Your task to perform on an android device: clear all cookies in the chrome app Image 0: 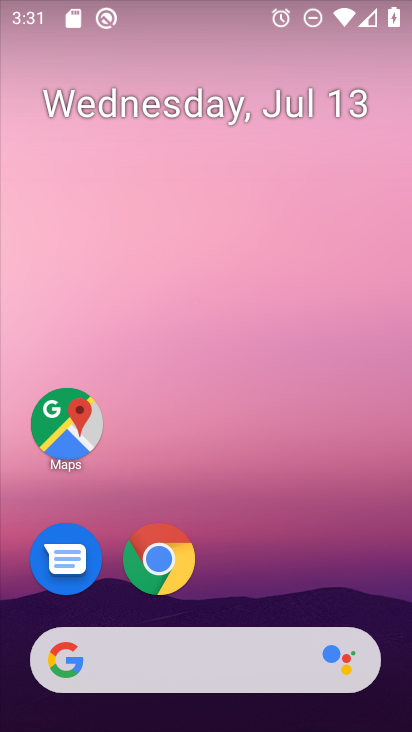
Step 0: drag from (310, 562) to (360, 138)
Your task to perform on an android device: clear all cookies in the chrome app Image 1: 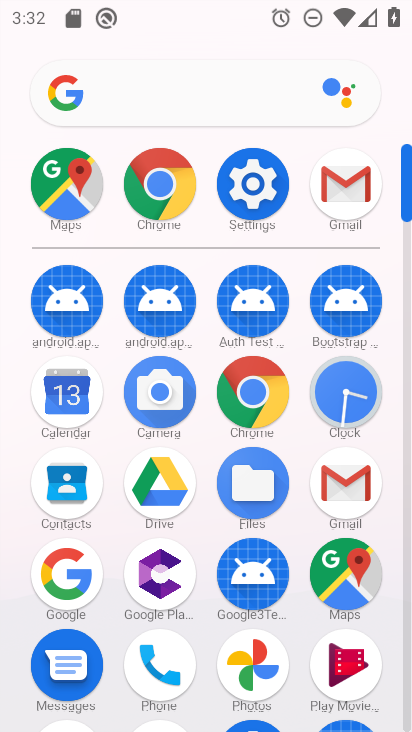
Step 1: click (264, 404)
Your task to perform on an android device: clear all cookies in the chrome app Image 2: 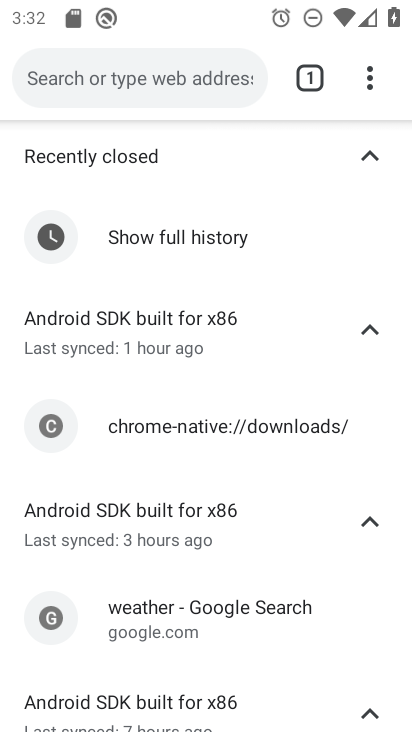
Step 2: click (370, 71)
Your task to perform on an android device: clear all cookies in the chrome app Image 3: 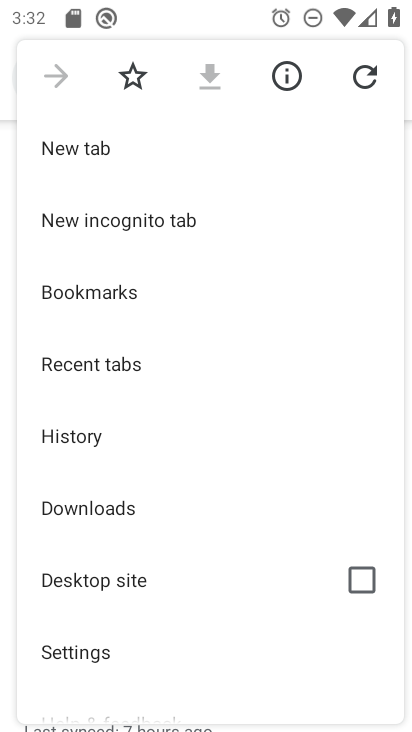
Step 3: drag from (294, 497) to (297, 376)
Your task to perform on an android device: clear all cookies in the chrome app Image 4: 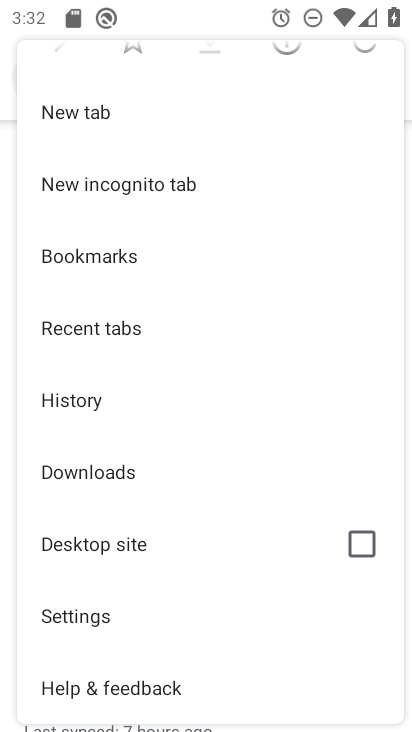
Step 4: click (129, 631)
Your task to perform on an android device: clear all cookies in the chrome app Image 5: 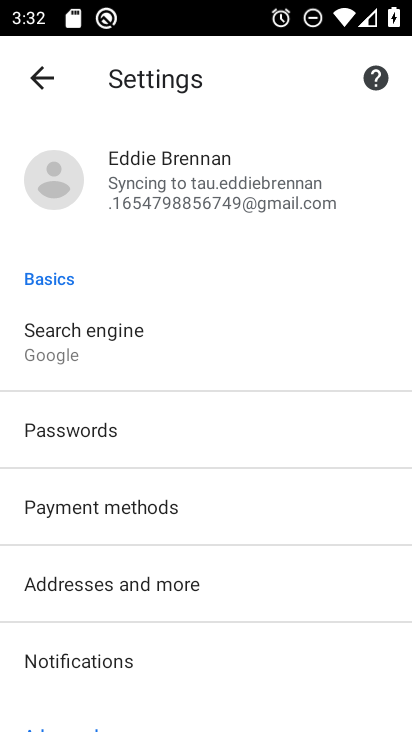
Step 5: drag from (363, 598) to (382, 275)
Your task to perform on an android device: clear all cookies in the chrome app Image 6: 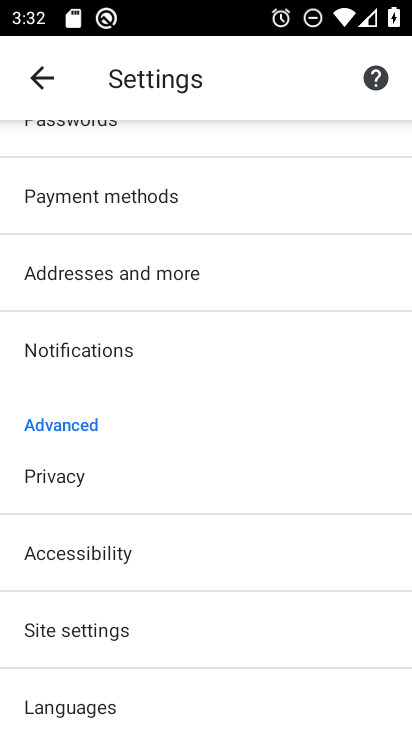
Step 6: drag from (341, 502) to (364, 340)
Your task to perform on an android device: clear all cookies in the chrome app Image 7: 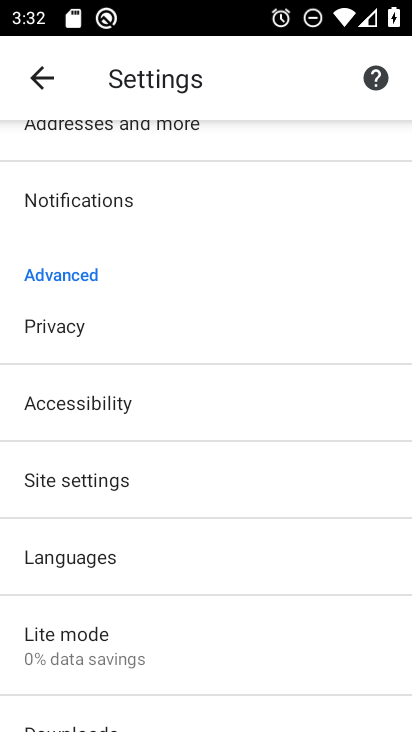
Step 7: click (237, 337)
Your task to perform on an android device: clear all cookies in the chrome app Image 8: 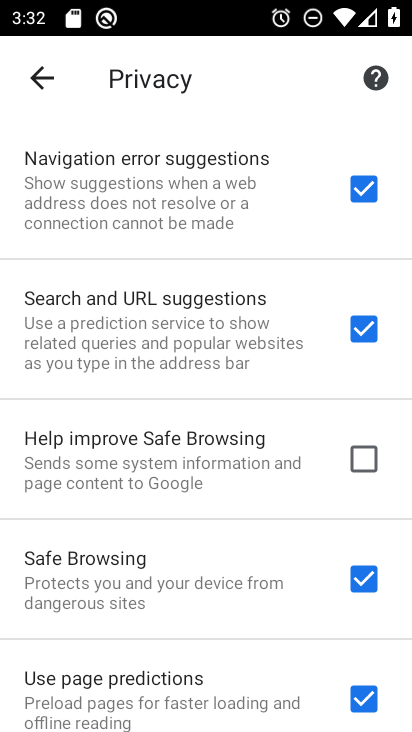
Step 8: drag from (252, 512) to (260, 444)
Your task to perform on an android device: clear all cookies in the chrome app Image 9: 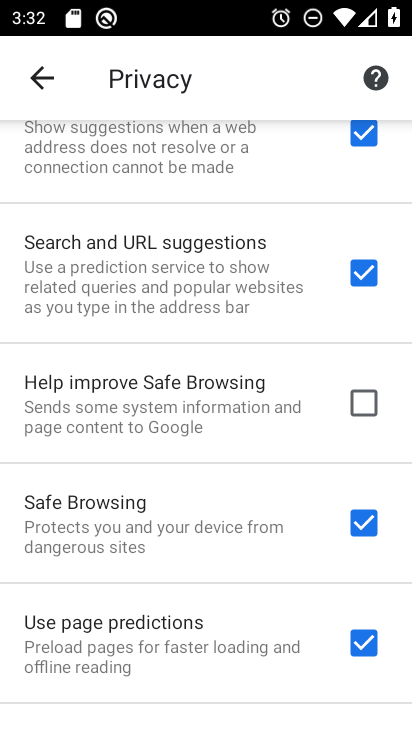
Step 9: drag from (275, 534) to (278, 432)
Your task to perform on an android device: clear all cookies in the chrome app Image 10: 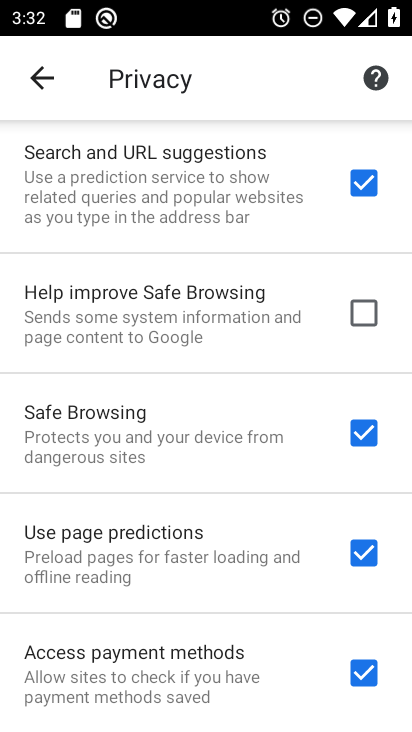
Step 10: drag from (266, 556) to (265, 418)
Your task to perform on an android device: clear all cookies in the chrome app Image 11: 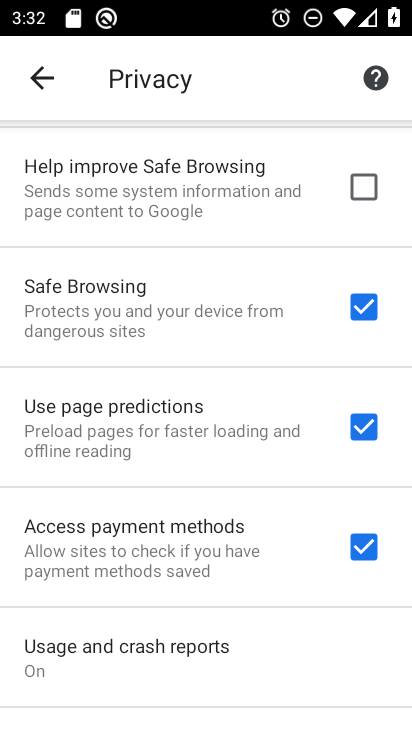
Step 11: drag from (280, 595) to (288, 484)
Your task to perform on an android device: clear all cookies in the chrome app Image 12: 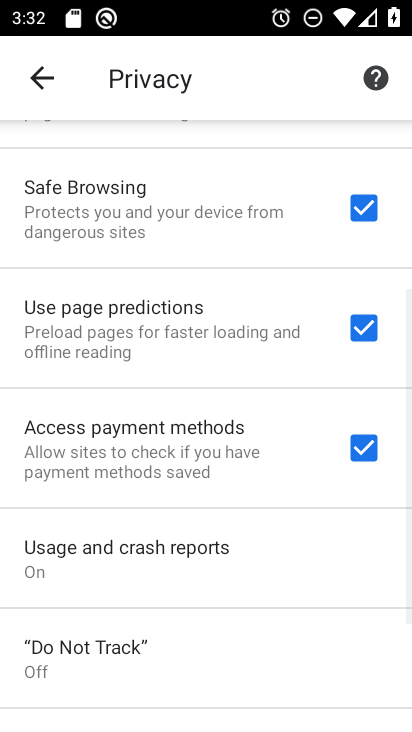
Step 12: drag from (279, 622) to (274, 520)
Your task to perform on an android device: clear all cookies in the chrome app Image 13: 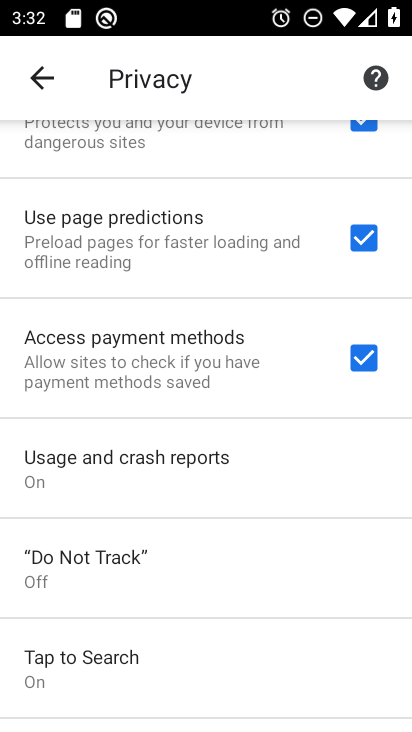
Step 13: drag from (256, 639) to (252, 498)
Your task to perform on an android device: clear all cookies in the chrome app Image 14: 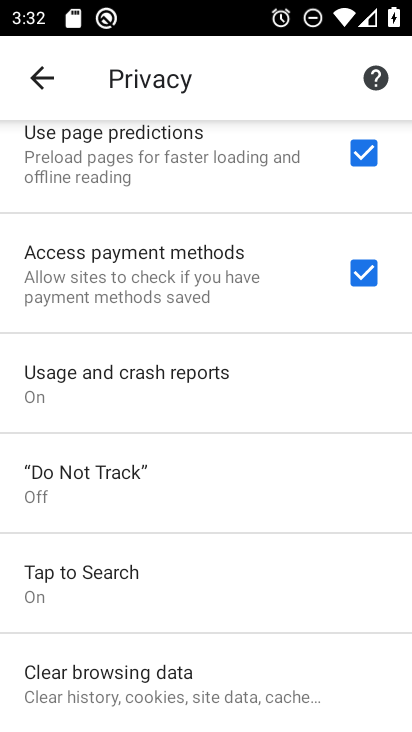
Step 14: click (250, 672)
Your task to perform on an android device: clear all cookies in the chrome app Image 15: 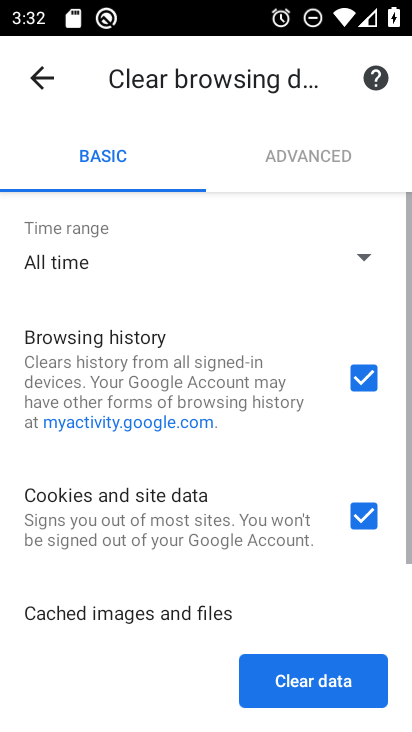
Step 15: click (297, 682)
Your task to perform on an android device: clear all cookies in the chrome app Image 16: 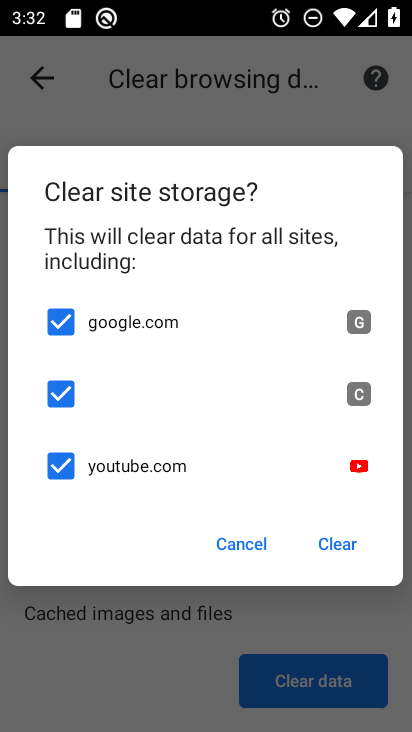
Step 16: click (350, 553)
Your task to perform on an android device: clear all cookies in the chrome app Image 17: 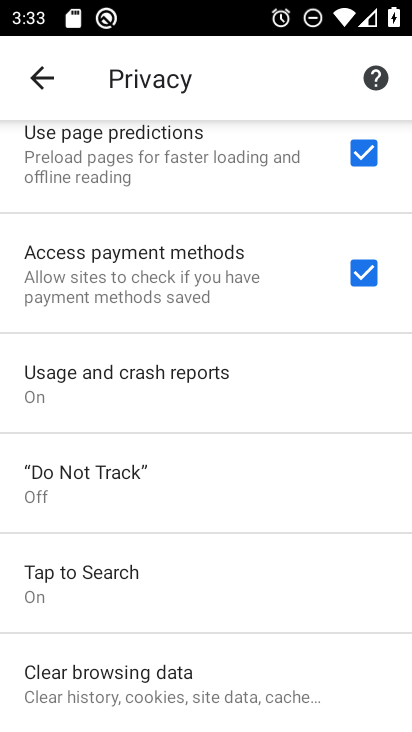
Step 17: task complete